Your task to perform on an android device: Go to wifi settings Image 0: 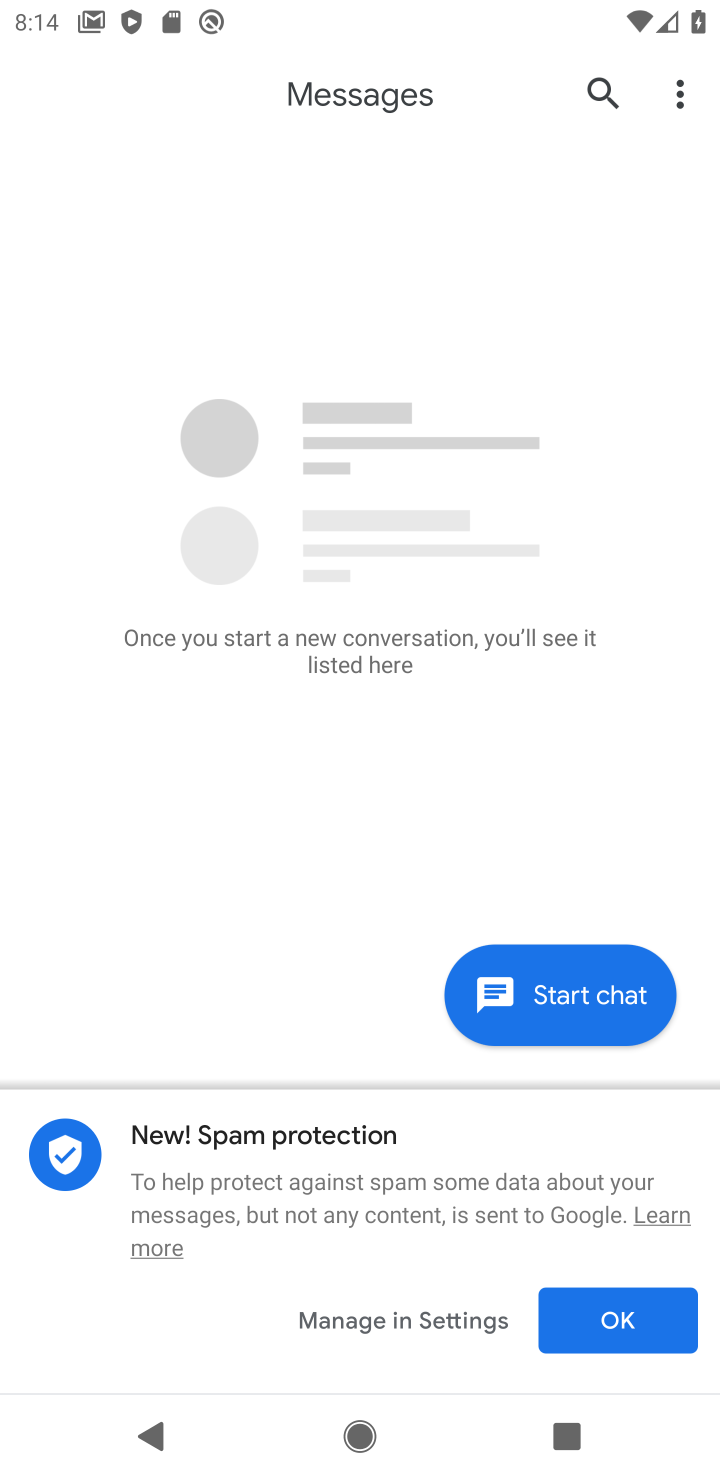
Step 0: press back button
Your task to perform on an android device: Go to wifi settings Image 1: 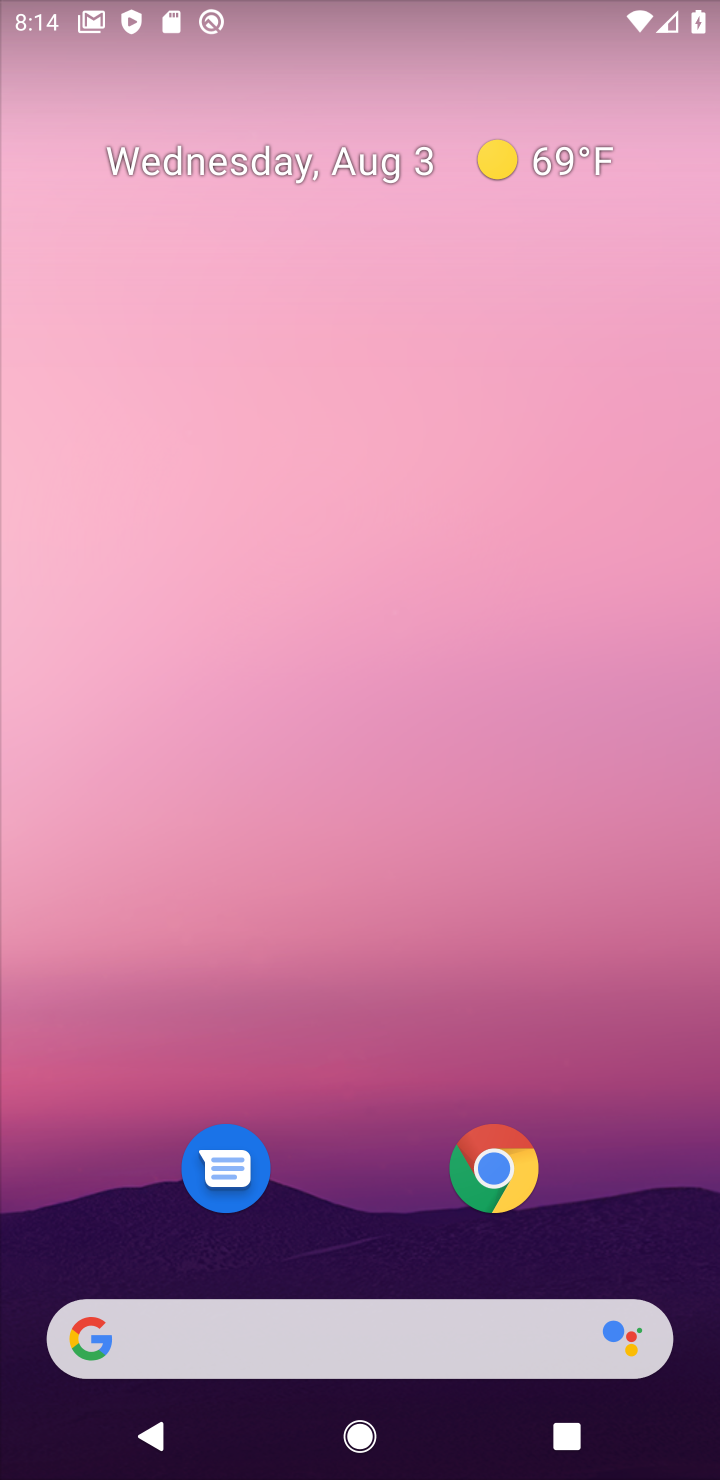
Step 1: drag from (472, 1303) to (439, 99)
Your task to perform on an android device: Go to wifi settings Image 2: 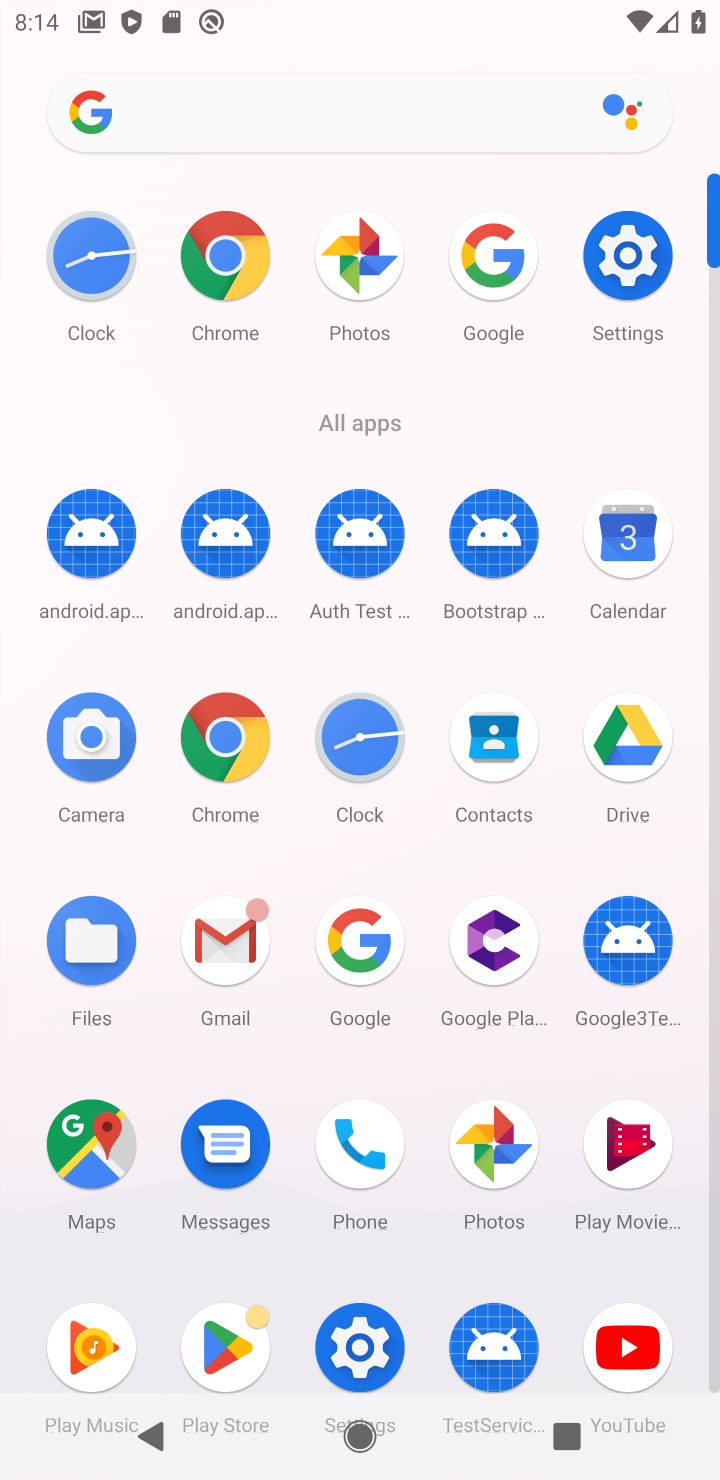
Step 2: click (584, 274)
Your task to perform on an android device: Go to wifi settings Image 3: 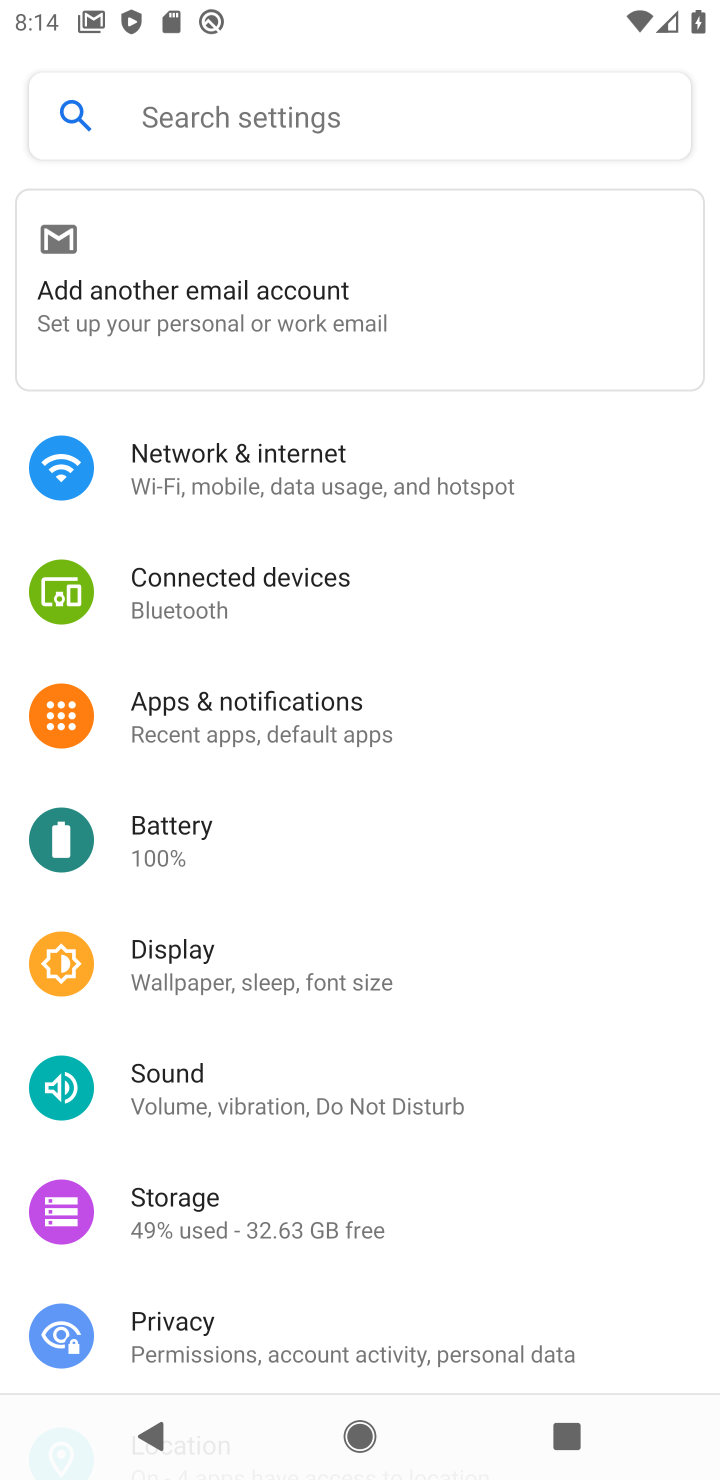
Step 3: click (185, 497)
Your task to perform on an android device: Go to wifi settings Image 4: 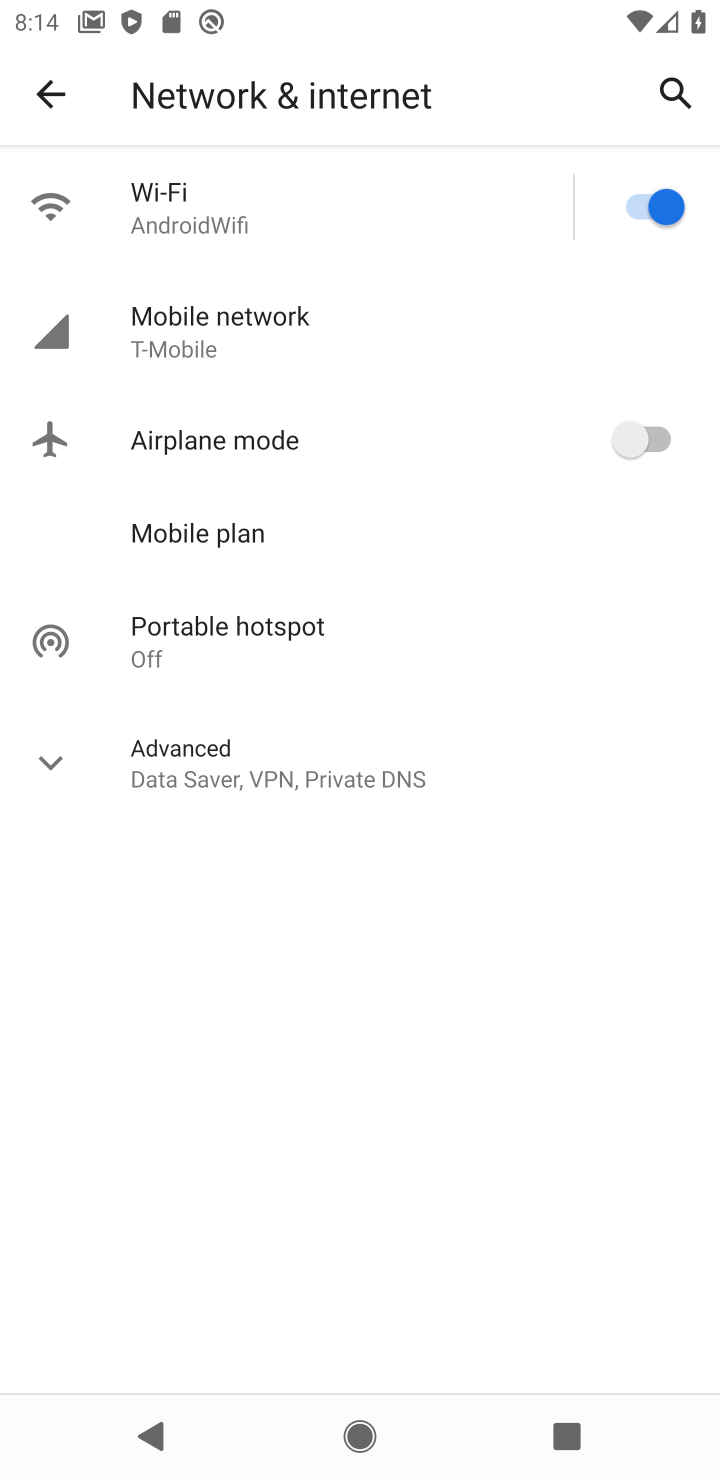
Step 4: click (150, 221)
Your task to perform on an android device: Go to wifi settings Image 5: 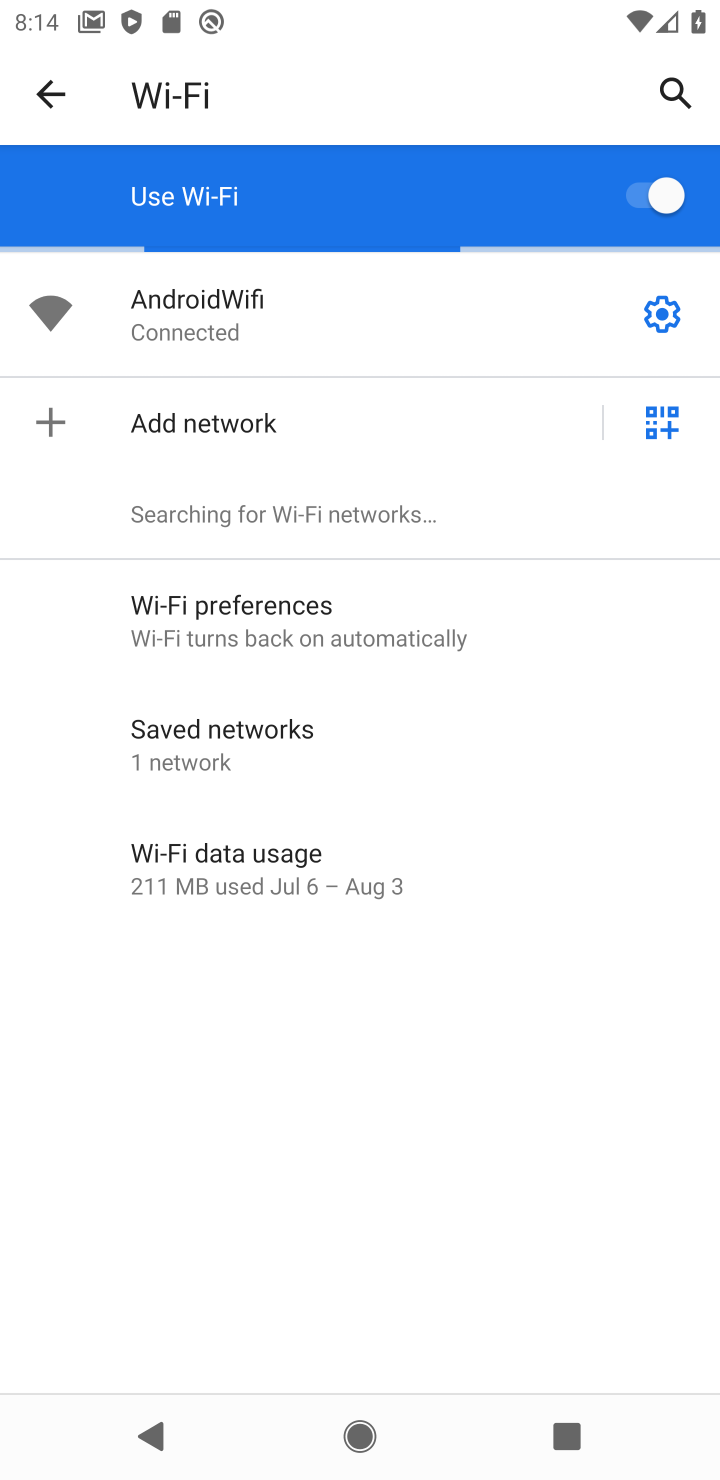
Step 5: task complete